Your task to perform on an android device: add a contact Image 0: 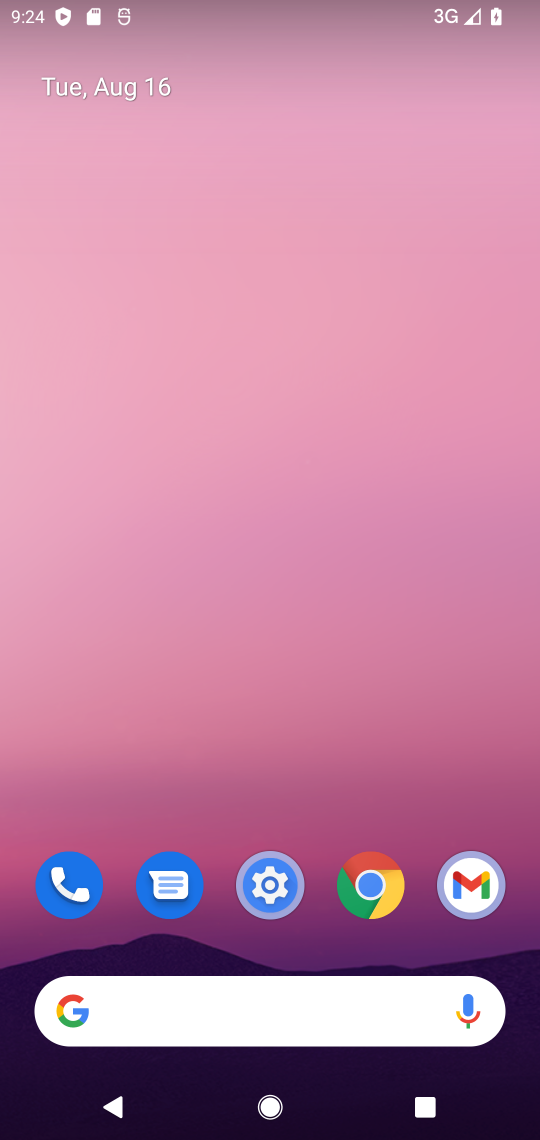
Step 0: drag from (261, 691) to (349, 145)
Your task to perform on an android device: add a contact Image 1: 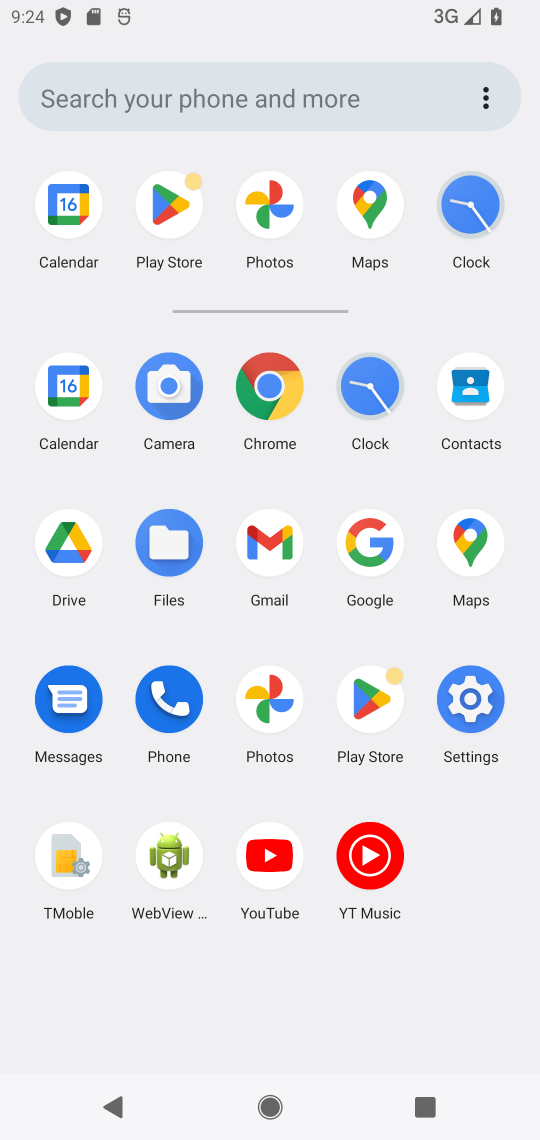
Step 1: click (485, 377)
Your task to perform on an android device: add a contact Image 2: 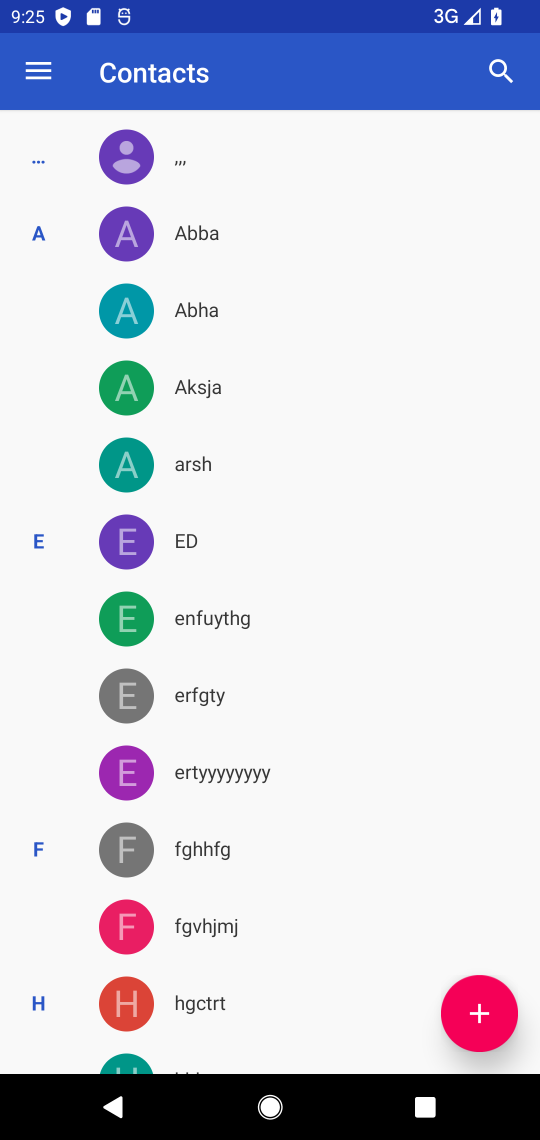
Step 2: click (480, 1008)
Your task to perform on an android device: add a contact Image 3: 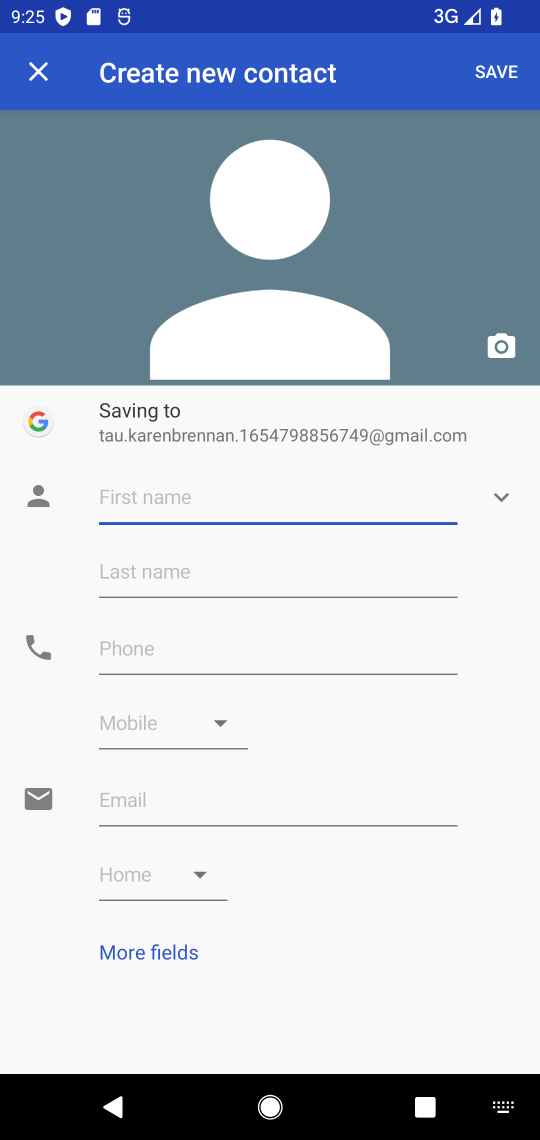
Step 3: type "Vinayika"
Your task to perform on an android device: add a contact Image 4: 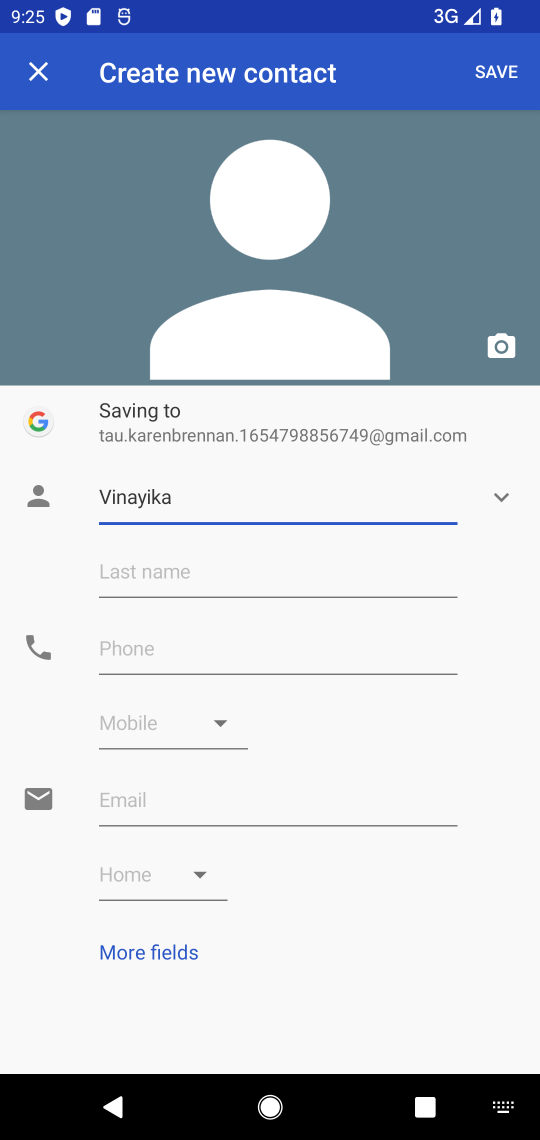
Step 4: click (275, 586)
Your task to perform on an android device: add a contact Image 5: 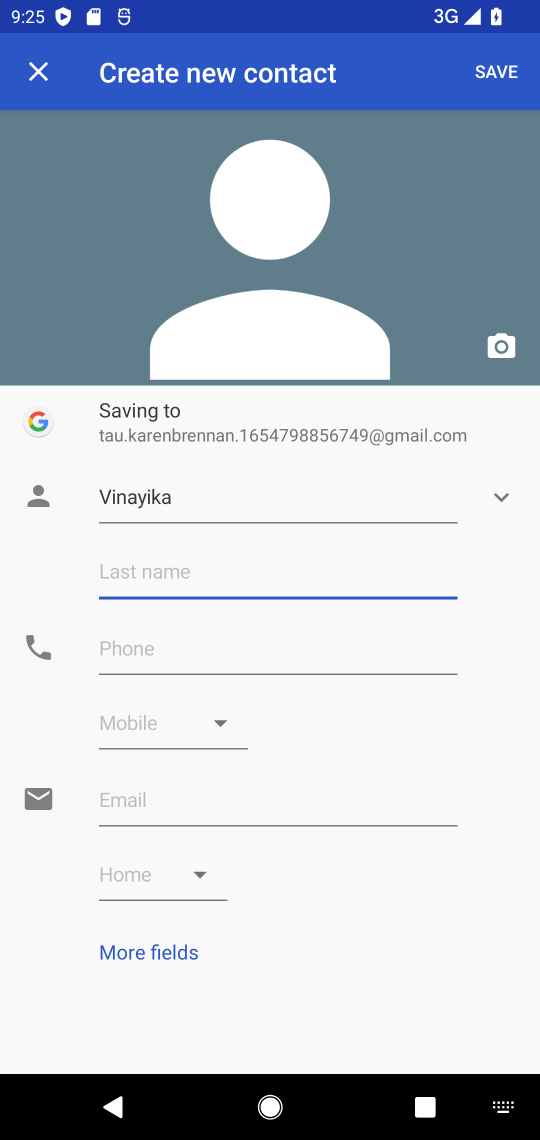
Step 5: type "Prabhakar"
Your task to perform on an android device: add a contact Image 6: 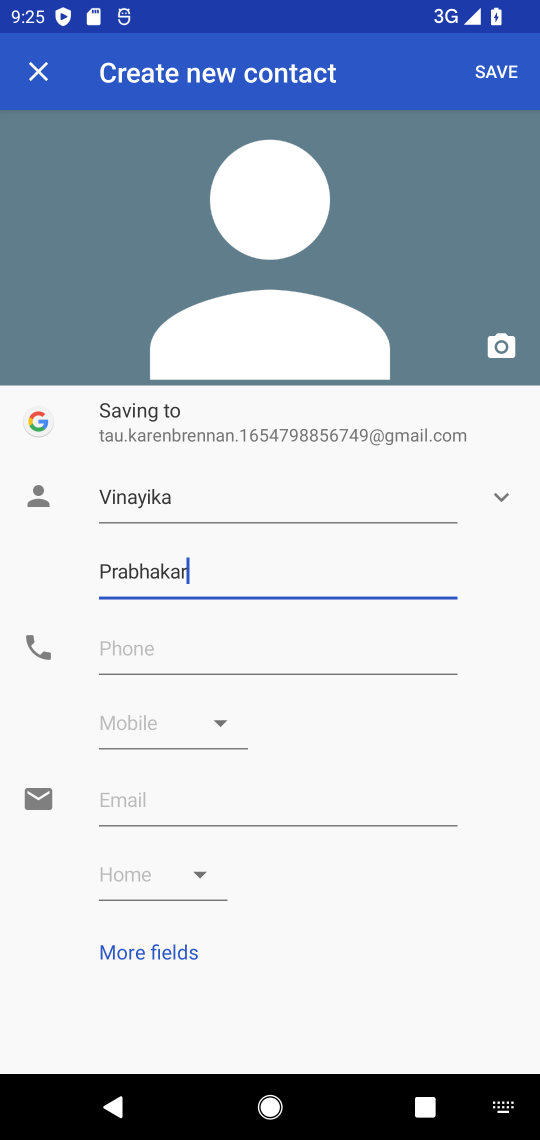
Step 6: click (246, 642)
Your task to perform on an android device: add a contact Image 7: 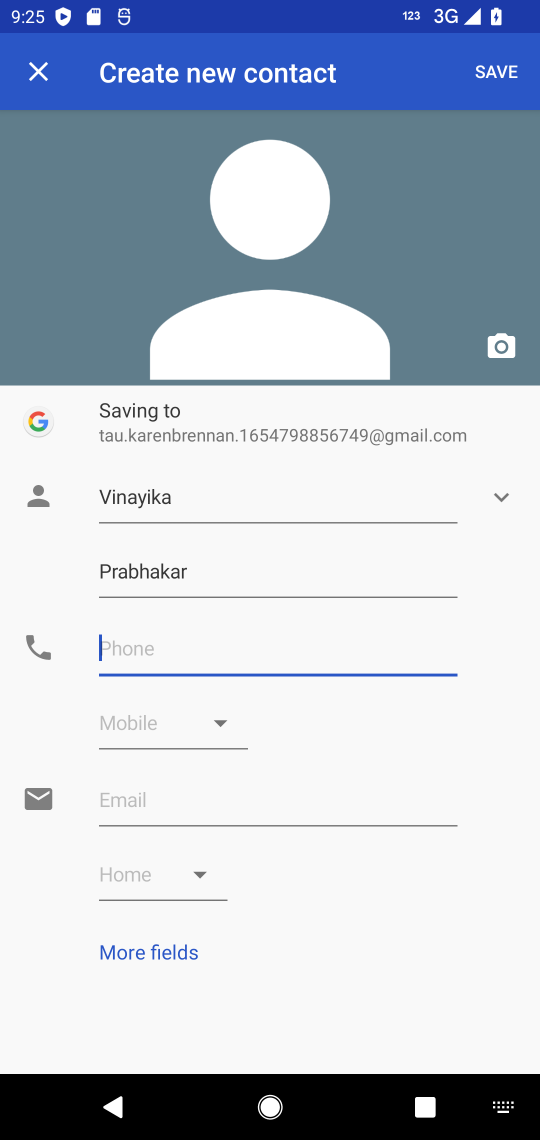
Step 7: type "8900987777"
Your task to perform on an android device: add a contact Image 8: 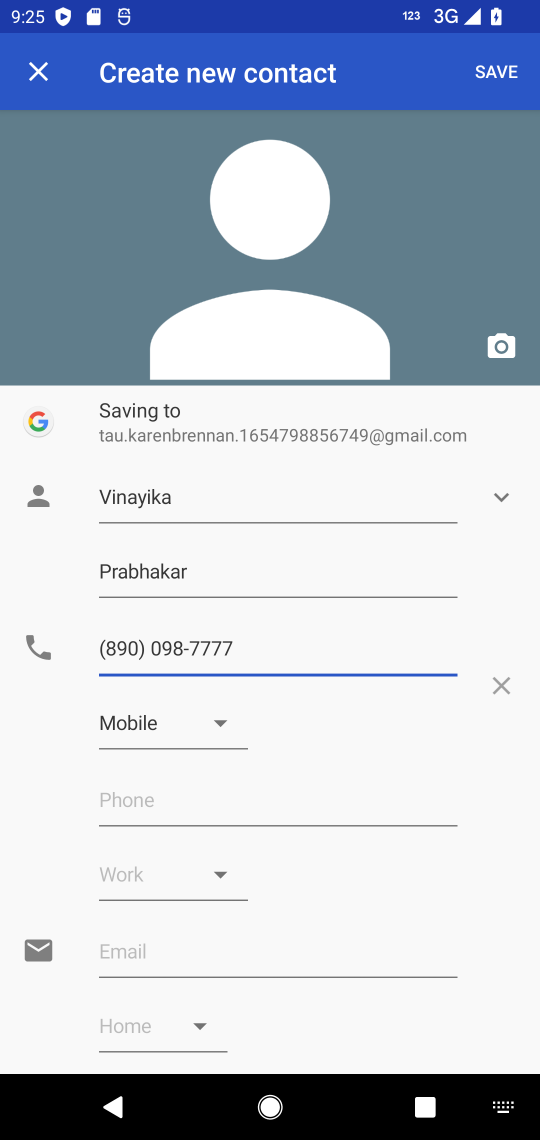
Step 8: click (494, 68)
Your task to perform on an android device: add a contact Image 9: 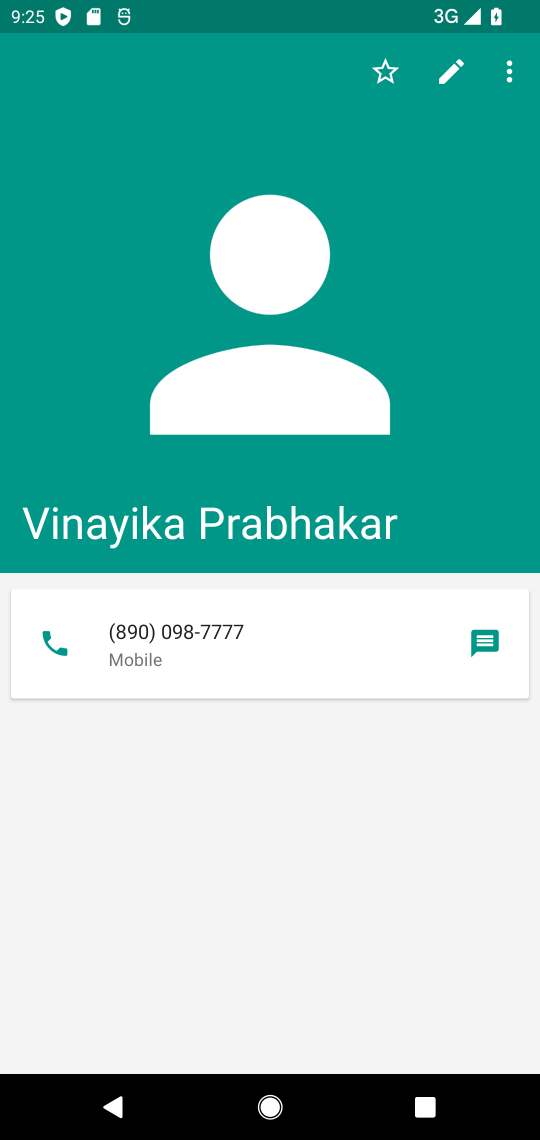
Step 9: task complete